Your task to perform on an android device: Open Reddit.com Image 0: 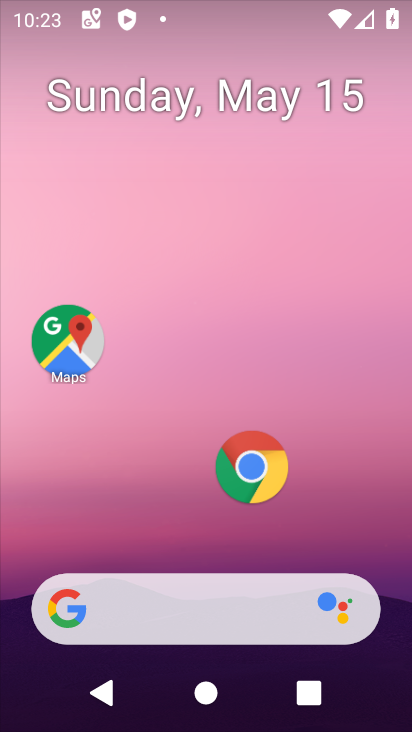
Step 0: click (247, 131)
Your task to perform on an android device: Open Reddit.com Image 1: 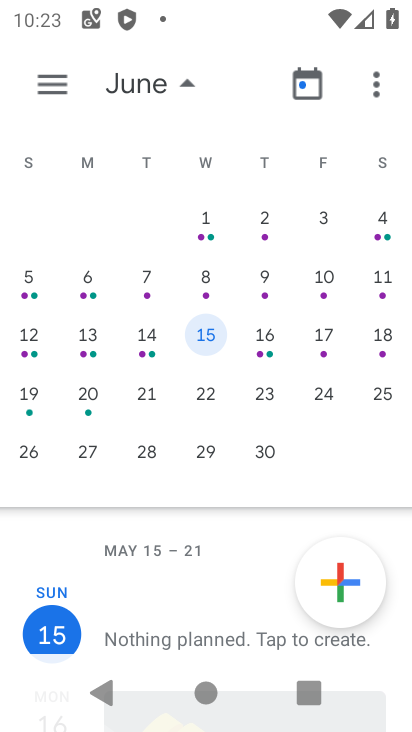
Step 1: drag from (167, 558) to (309, 31)
Your task to perform on an android device: Open Reddit.com Image 2: 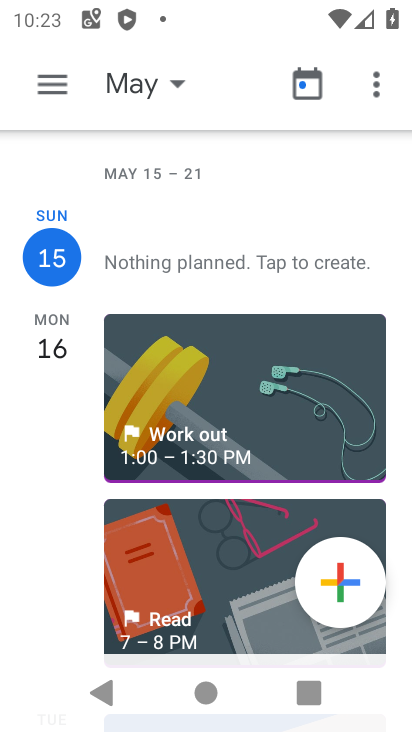
Step 2: drag from (161, 609) to (272, 15)
Your task to perform on an android device: Open Reddit.com Image 3: 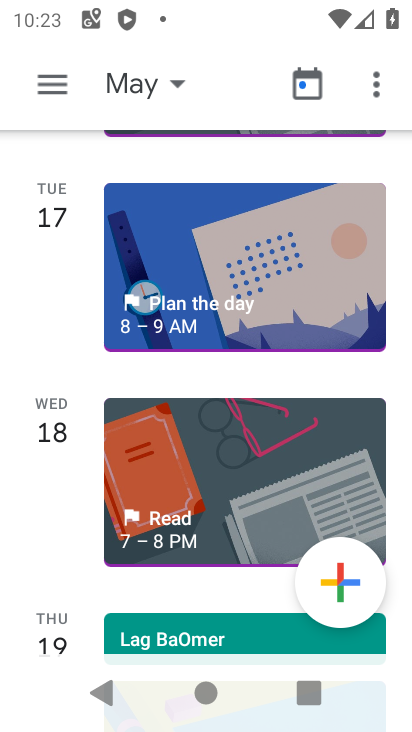
Step 3: drag from (188, 549) to (206, 118)
Your task to perform on an android device: Open Reddit.com Image 4: 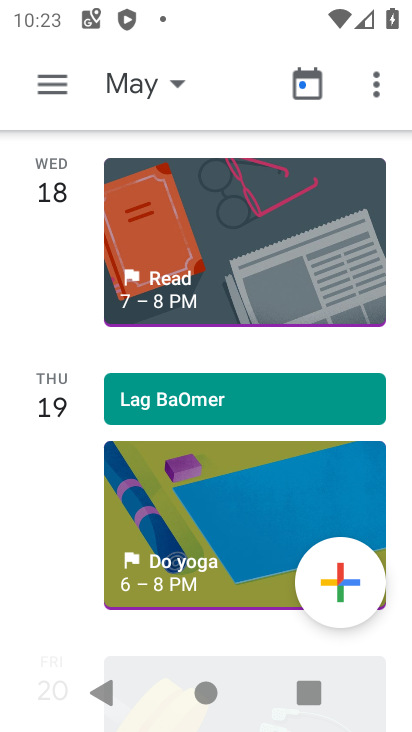
Step 4: drag from (257, 164) to (274, 575)
Your task to perform on an android device: Open Reddit.com Image 5: 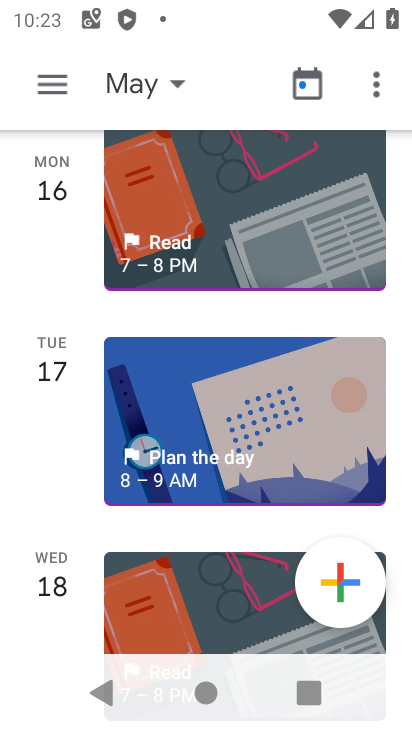
Step 5: click (129, 85)
Your task to perform on an android device: Open Reddit.com Image 6: 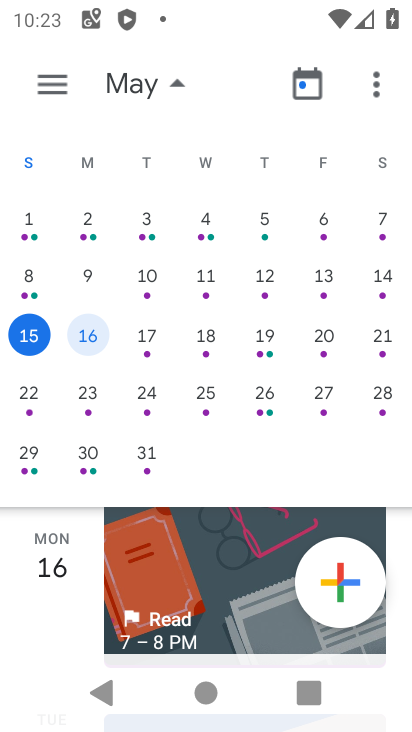
Step 6: press home button
Your task to perform on an android device: Open Reddit.com Image 7: 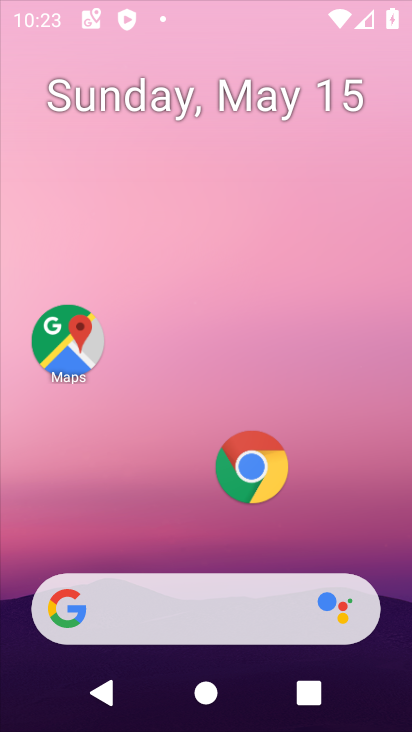
Step 7: drag from (174, 541) to (263, 0)
Your task to perform on an android device: Open Reddit.com Image 8: 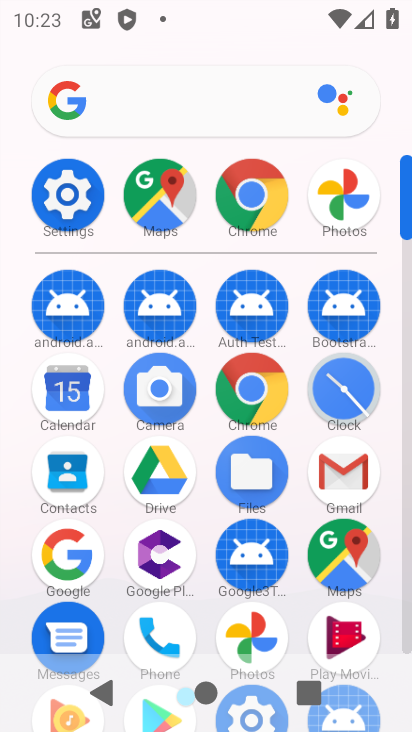
Step 8: click (136, 102)
Your task to perform on an android device: Open Reddit.com Image 9: 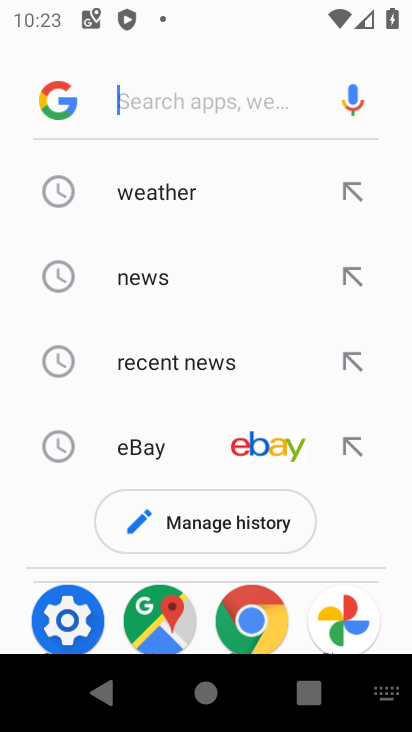
Step 9: type "reddit"
Your task to perform on an android device: Open Reddit.com Image 10: 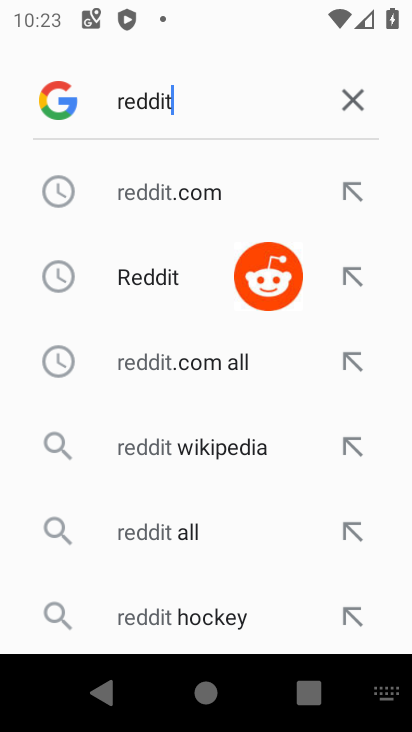
Step 10: click (188, 221)
Your task to perform on an android device: Open Reddit.com Image 11: 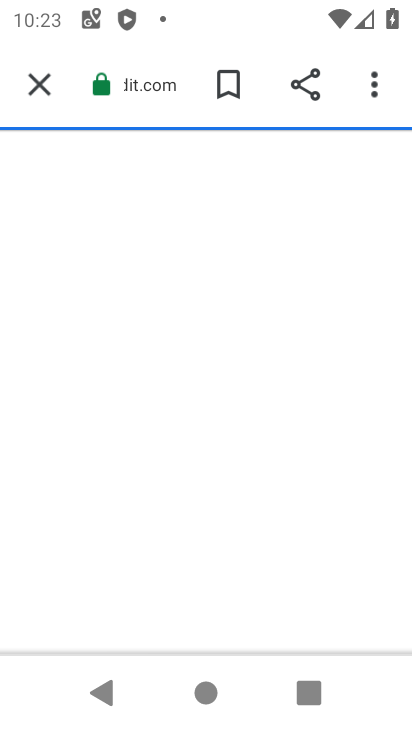
Step 11: task complete